Your task to perform on an android device: toggle priority inbox in the gmail app Image 0: 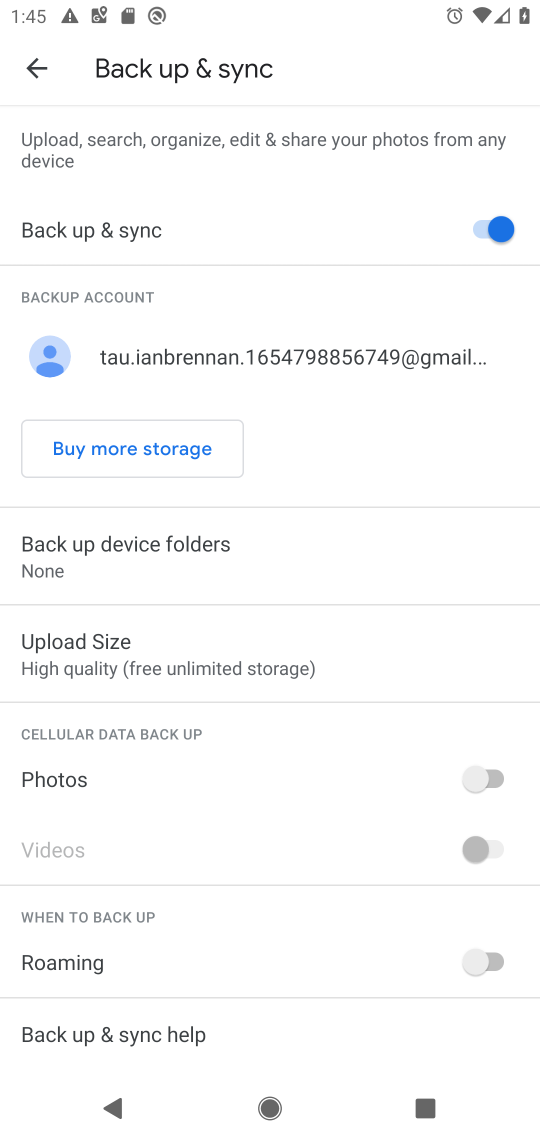
Step 0: press home button
Your task to perform on an android device: toggle priority inbox in the gmail app Image 1: 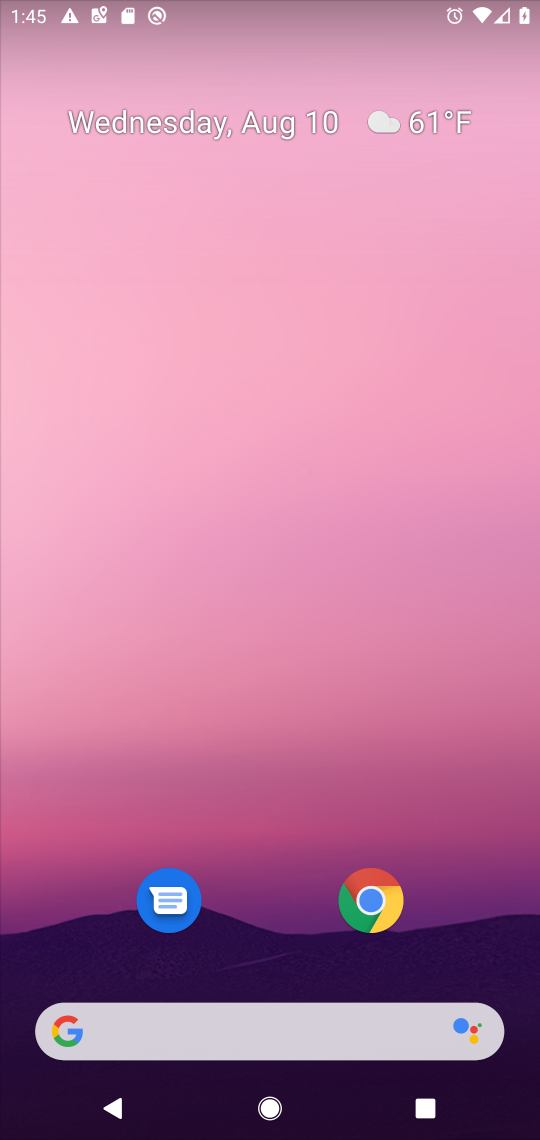
Step 1: drag from (265, 927) to (367, 26)
Your task to perform on an android device: toggle priority inbox in the gmail app Image 2: 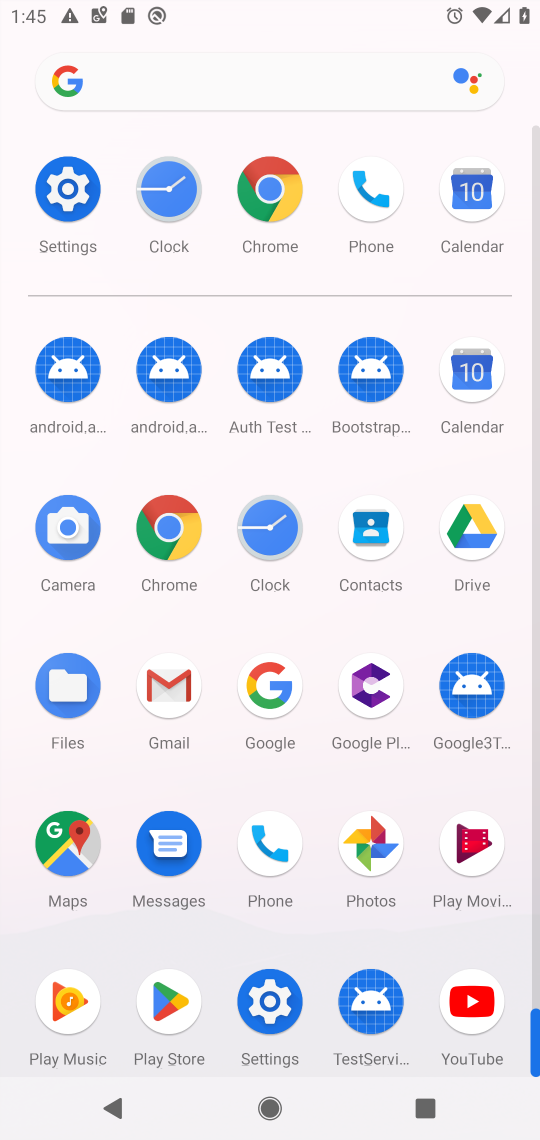
Step 2: click (178, 689)
Your task to perform on an android device: toggle priority inbox in the gmail app Image 3: 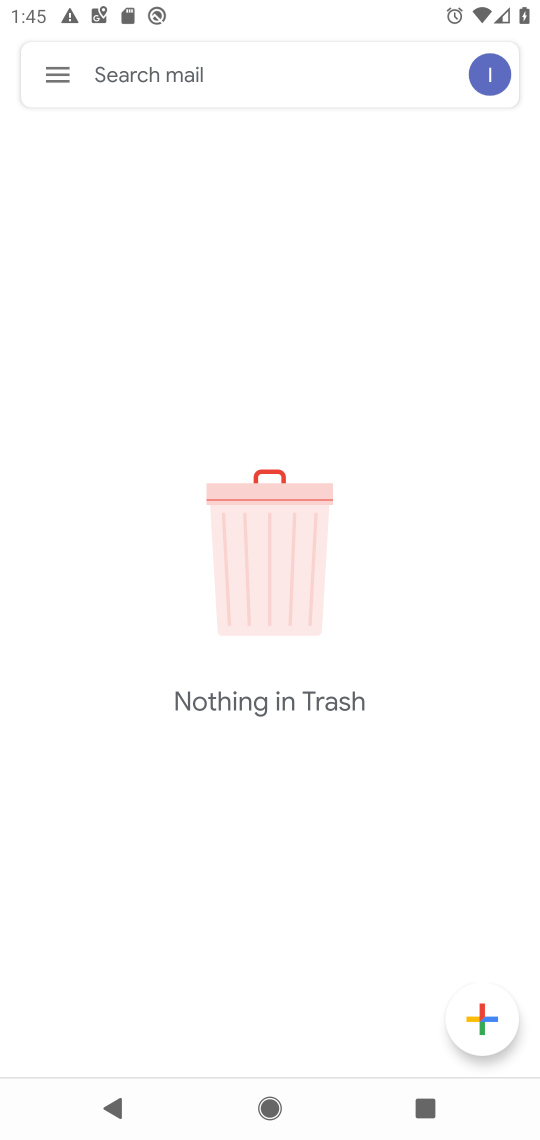
Step 3: click (57, 72)
Your task to perform on an android device: toggle priority inbox in the gmail app Image 4: 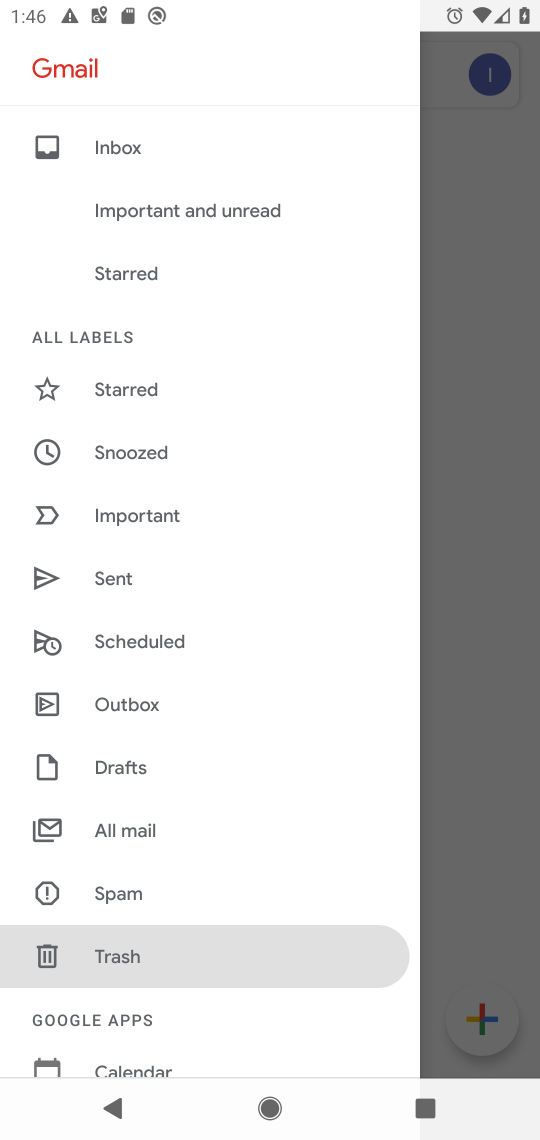
Step 4: drag from (250, 837) to (315, 239)
Your task to perform on an android device: toggle priority inbox in the gmail app Image 5: 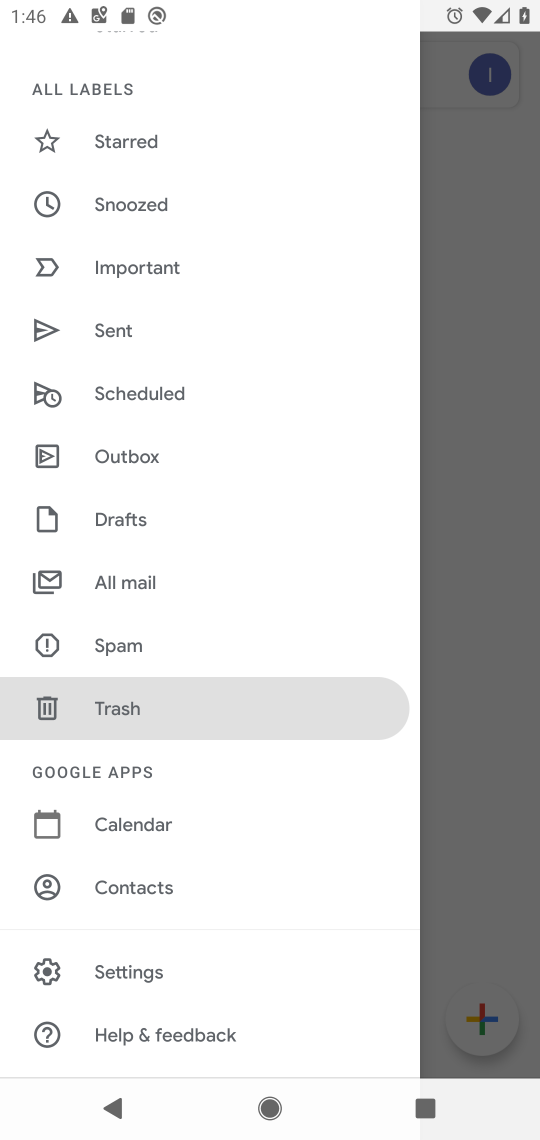
Step 5: click (158, 965)
Your task to perform on an android device: toggle priority inbox in the gmail app Image 6: 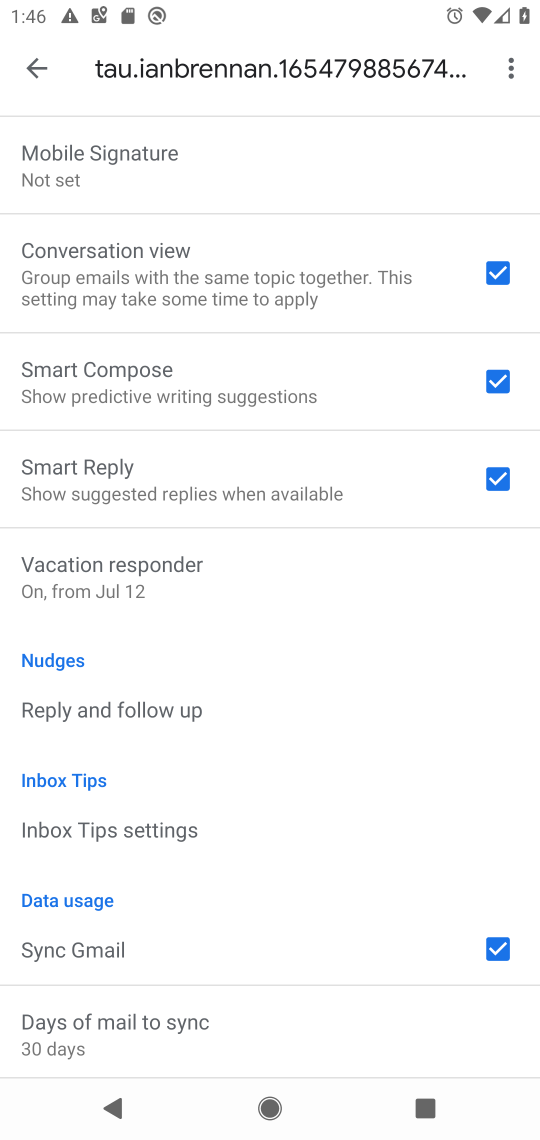
Step 6: drag from (292, 929) to (309, 371)
Your task to perform on an android device: toggle priority inbox in the gmail app Image 7: 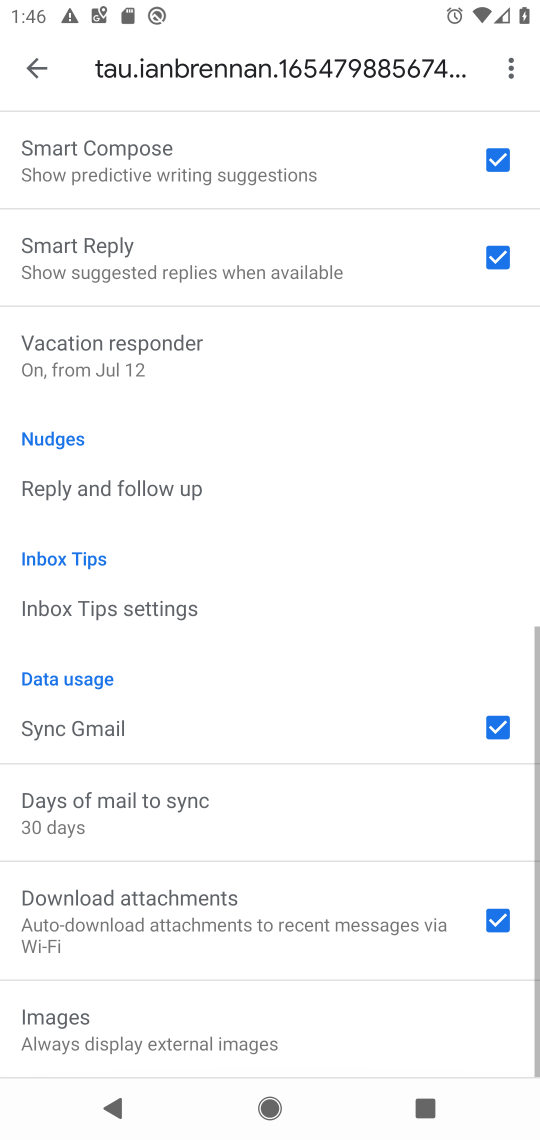
Step 7: drag from (307, 374) to (260, 1029)
Your task to perform on an android device: toggle priority inbox in the gmail app Image 8: 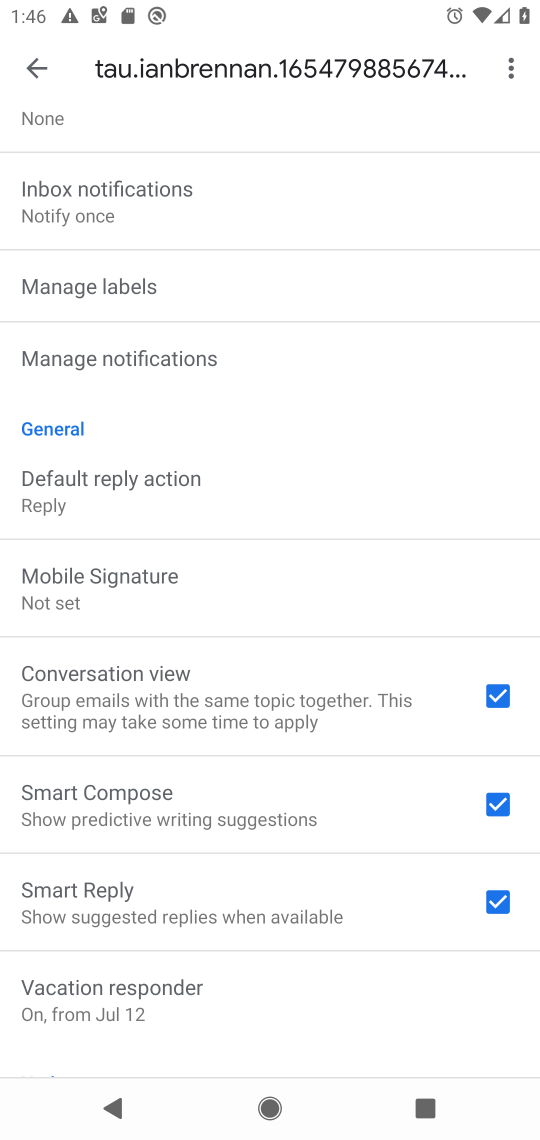
Step 8: click (118, 196)
Your task to perform on an android device: toggle priority inbox in the gmail app Image 9: 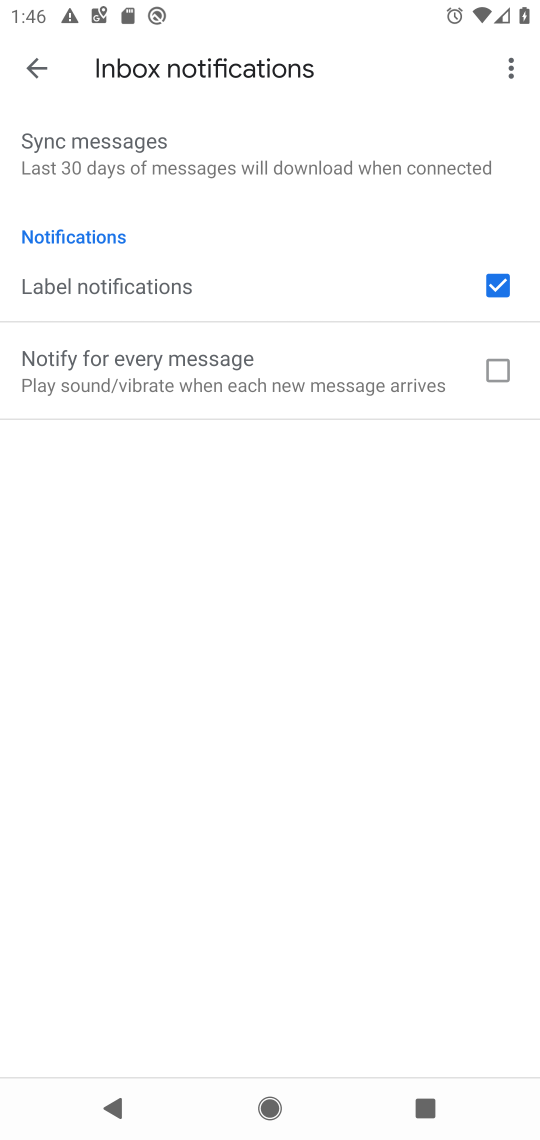
Step 9: click (35, 64)
Your task to perform on an android device: toggle priority inbox in the gmail app Image 10: 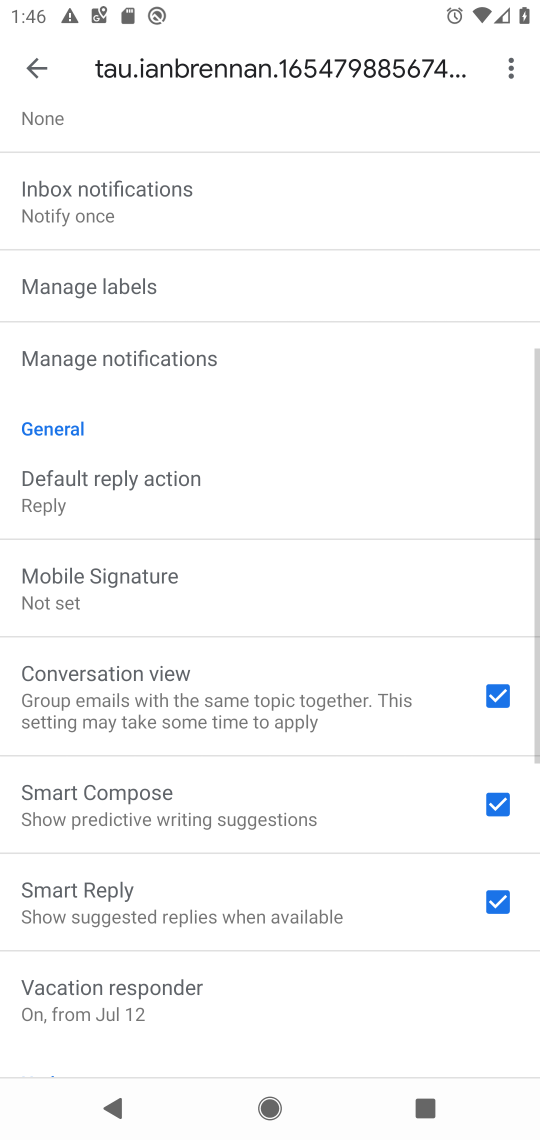
Step 10: drag from (254, 235) to (261, 831)
Your task to perform on an android device: toggle priority inbox in the gmail app Image 11: 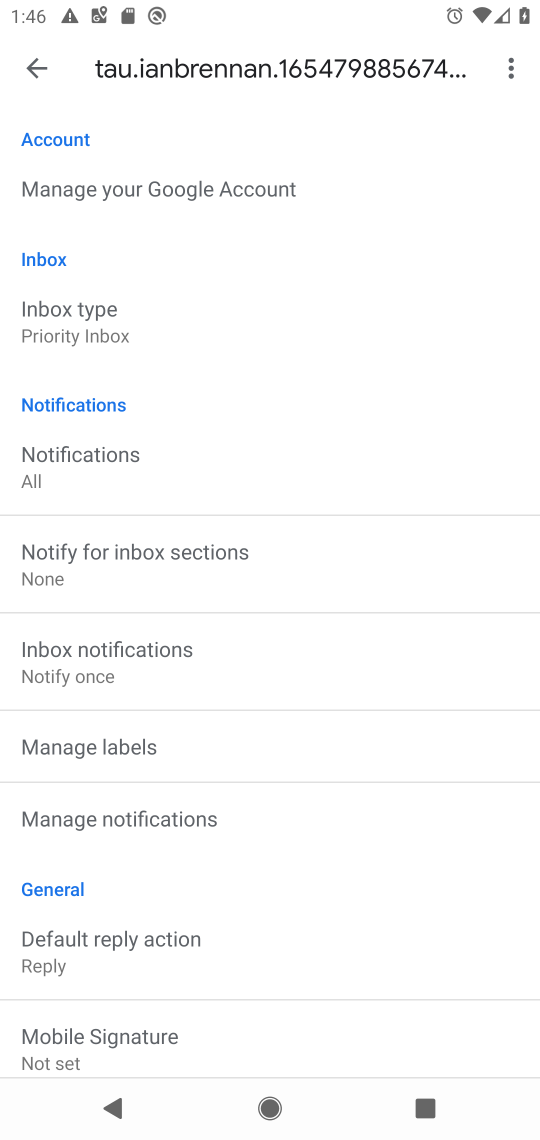
Step 11: click (136, 649)
Your task to perform on an android device: toggle priority inbox in the gmail app Image 12: 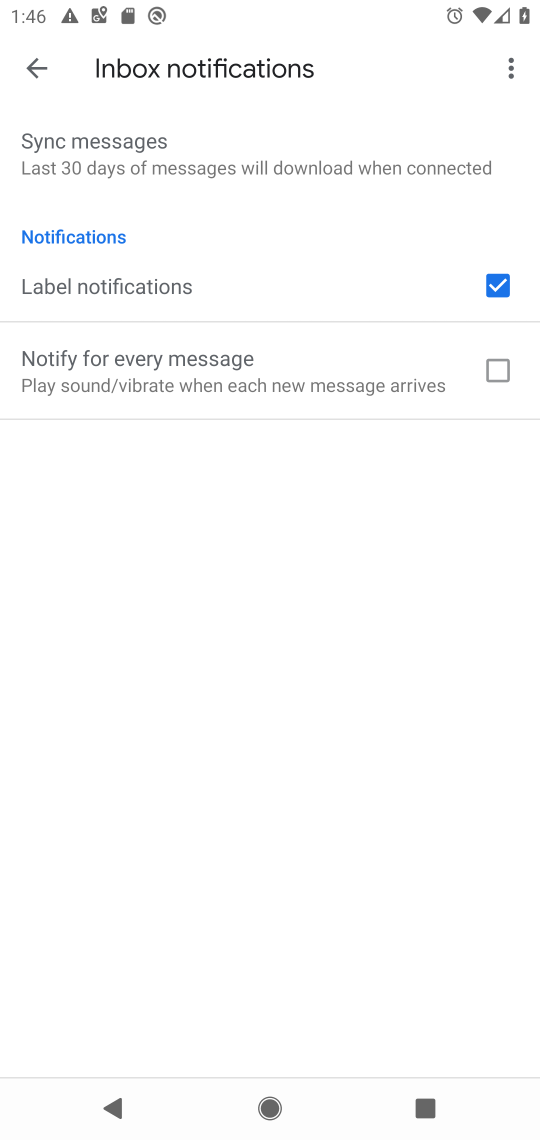
Step 12: click (28, 58)
Your task to perform on an android device: toggle priority inbox in the gmail app Image 13: 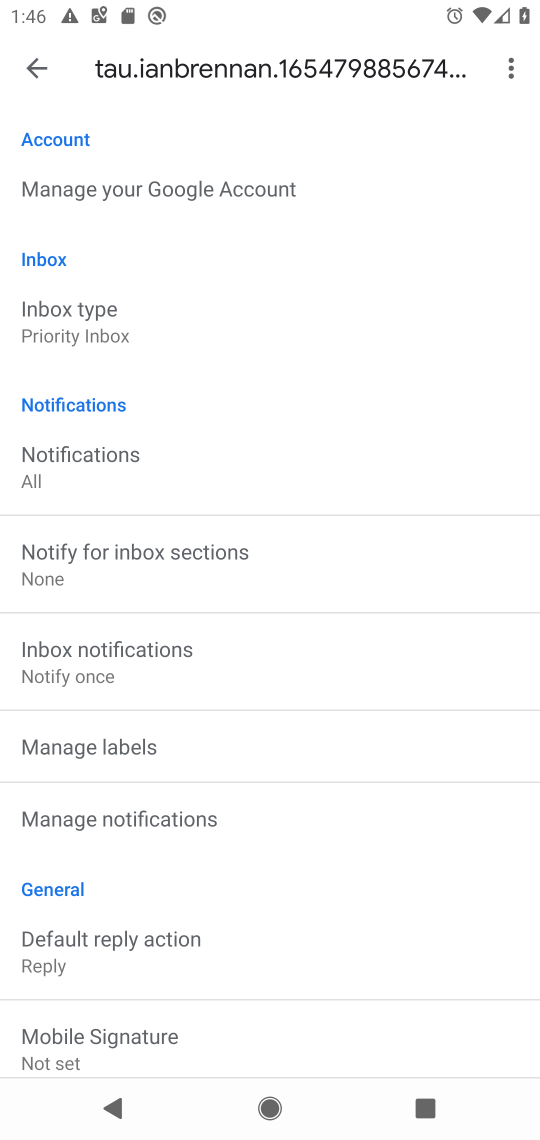
Step 13: click (108, 319)
Your task to perform on an android device: toggle priority inbox in the gmail app Image 14: 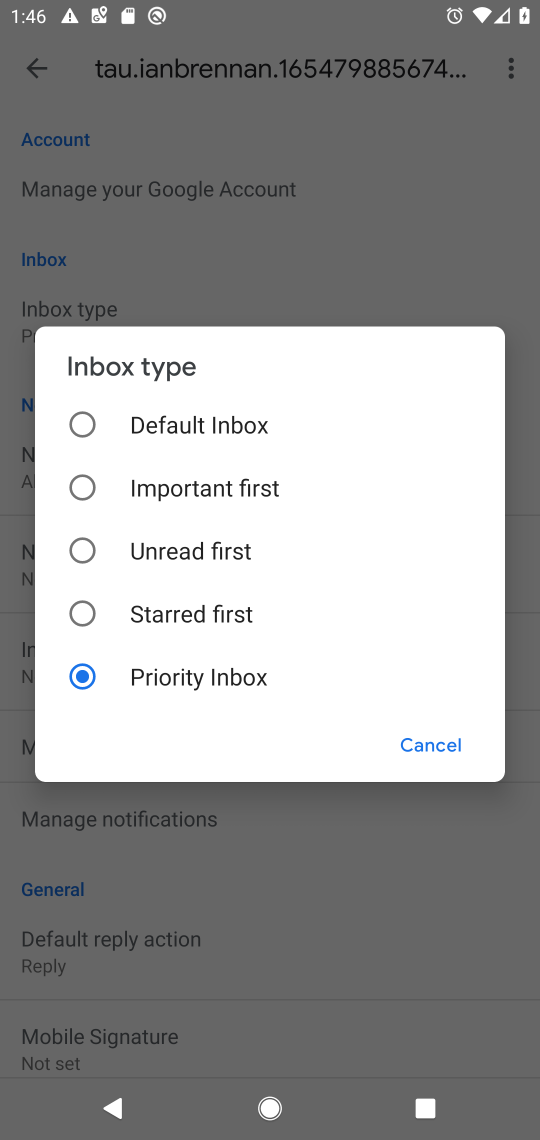
Step 14: click (87, 415)
Your task to perform on an android device: toggle priority inbox in the gmail app Image 15: 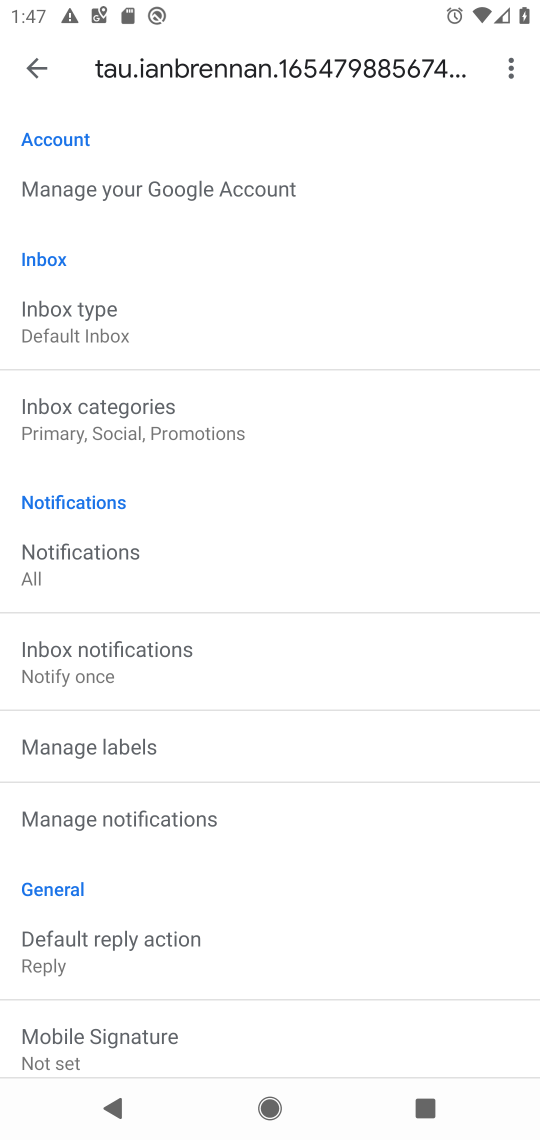
Step 15: task complete